Your task to perform on an android device: turn off javascript in the chrome app Image 0: 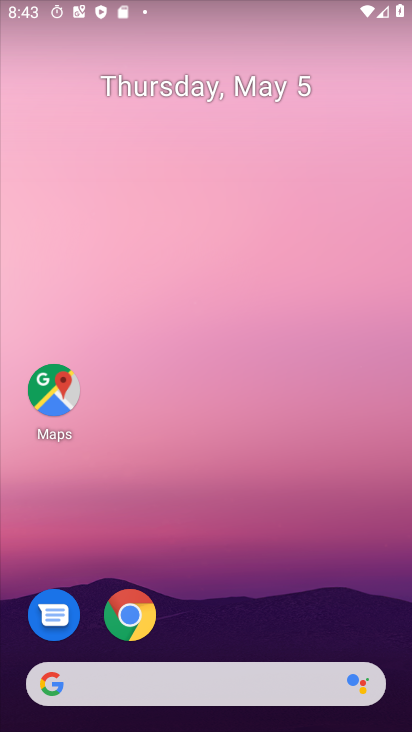
Step 0: click (132, 629)
Your task to perform on an android device: turn off javascript in the chrome app Image 1: 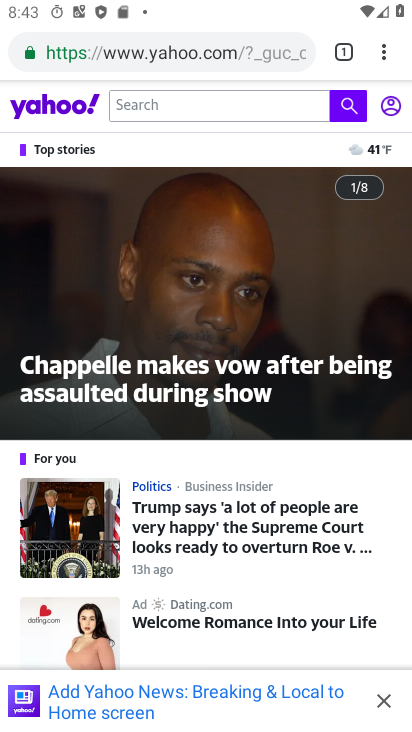
Step 1: click (381, 55)
Your task to perform on an android device: turn off javascript in the chrome app Image 2: 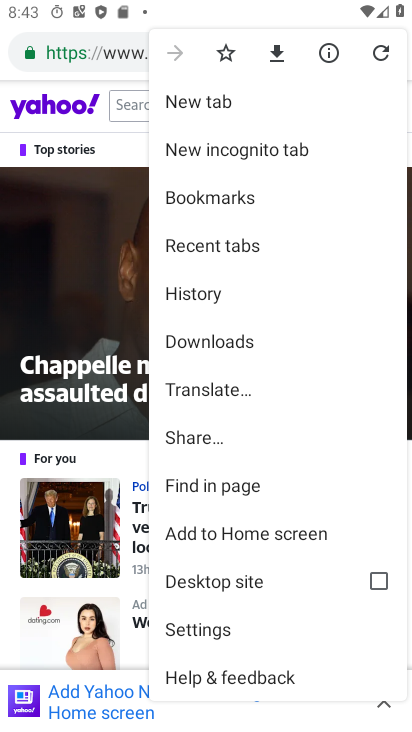
Step 2: click (208, 637)
Your task to perform on an android device: turn off javascript in the chrome app Image 3: 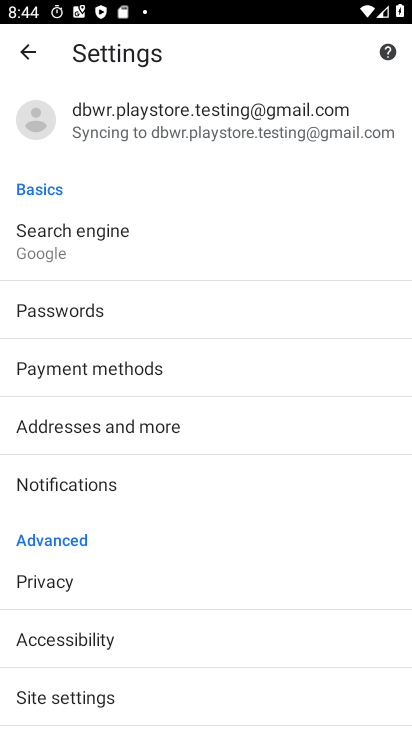
Step 3: drag from (96, 572) to (106, 474)
Your task to perform on an android device: turn off javascript in the chrome app Image 4: 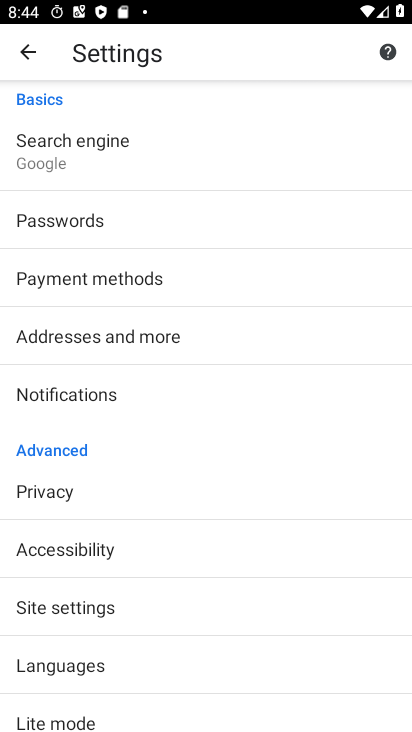
Step 4: click (75, 617)
Your task to perform on an android device: turn off javascript in the chrome app Image 5: 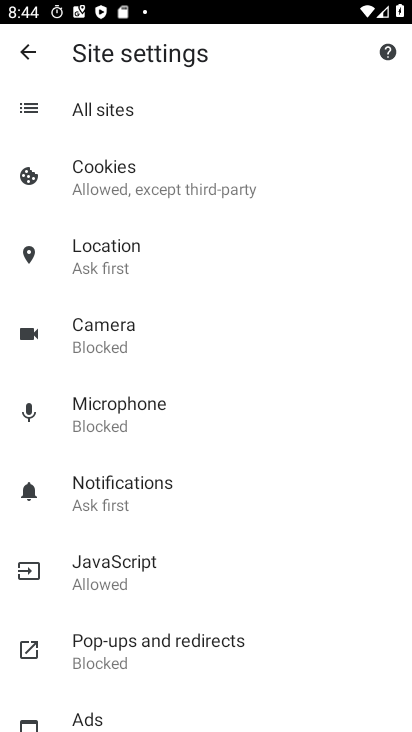
Step 5: click (104, 570)
Your task to perform on an android device: turn off javascript in the chrome app Image 6: 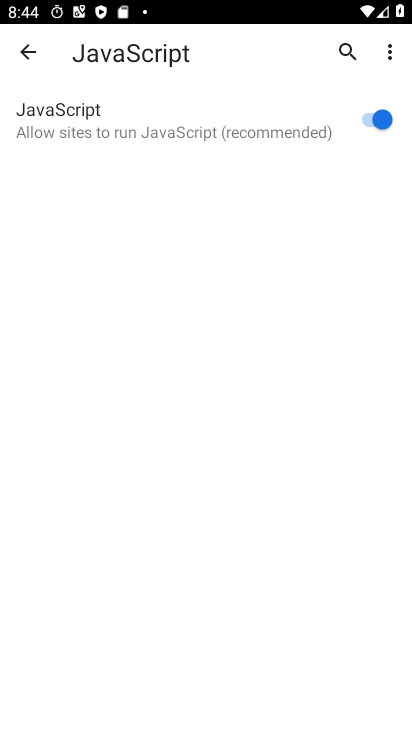
Step 6: click (366, 128)
Your task to perform on an android device: turn off javascript in the chrome app Image 7: 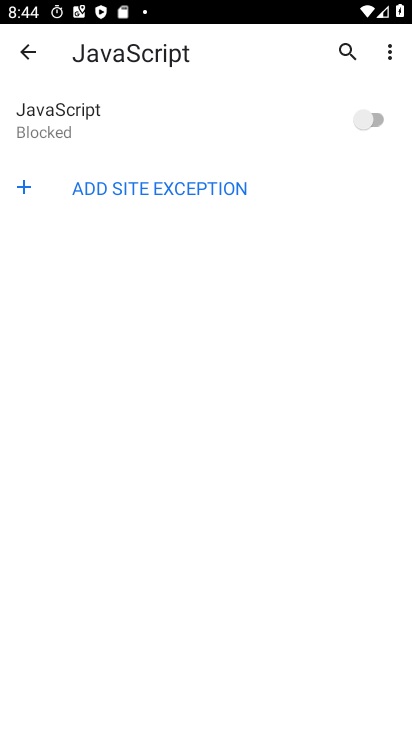
Step 7: task complete